Your task to perform on an android device: Open Reddit.com Image 0: 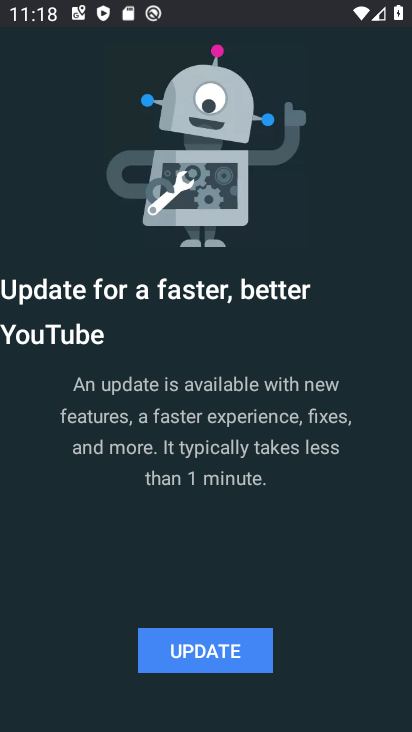
Step 0: press home button
Your task to perform on an android device: Open Reddit.com Image 1: 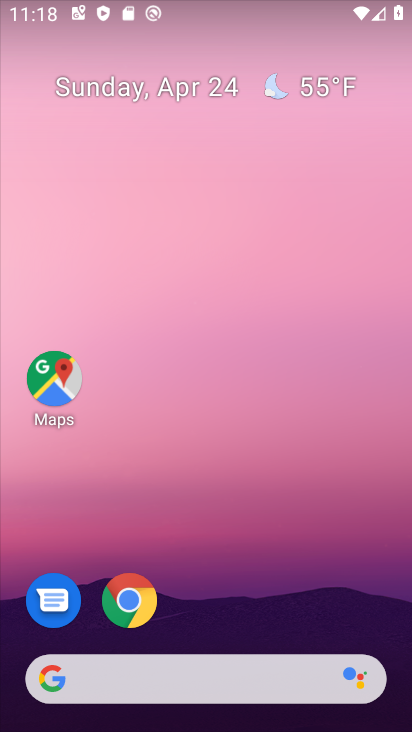
Step 1: drag from (195, 638) to (237, 122)
Your task to perform on an android device: Open Reddit.com Image 2: 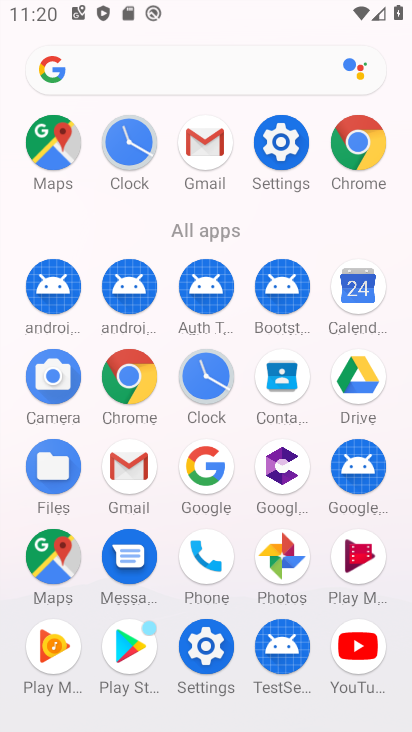
Step 2: click (202, 470)
Your task to perform on an android device: Open Reddit.com Image 3: 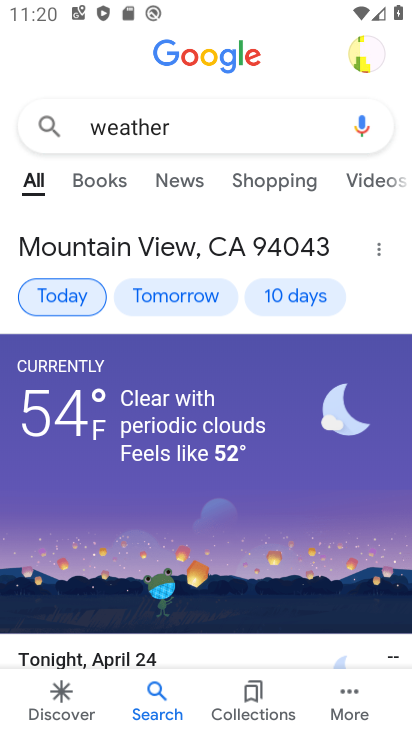
Step 3: click (225, 124)
Your task to perform on an android device: Open Reddit.com Image 4: 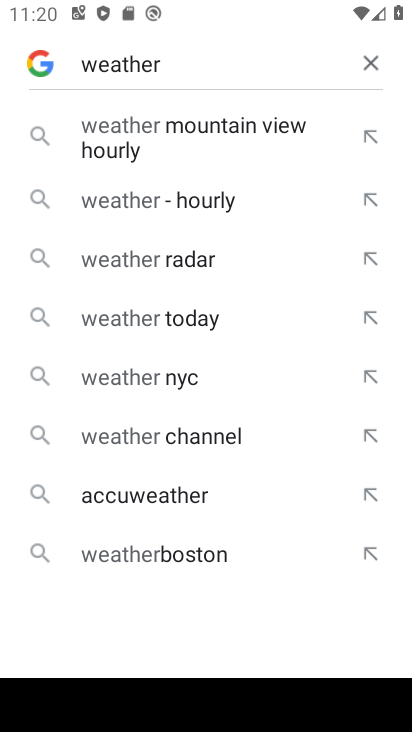
Step 4: click (375, 66)
Your task to perform on an android device: Open Reddit.com Image 5: 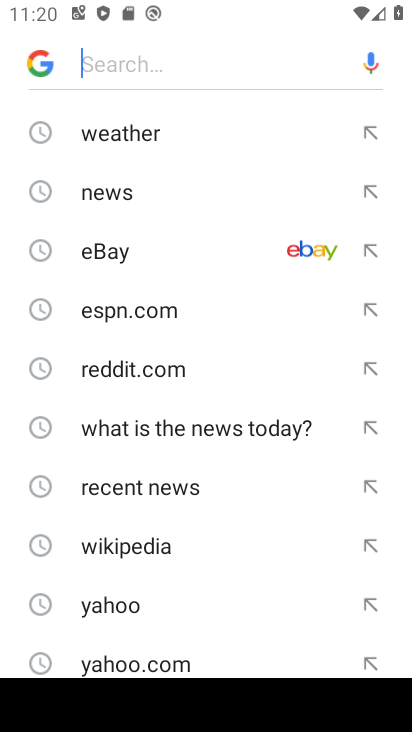
Step 5: click (162, 378)
Your task to perform on an android device: Open Reddit.com Image 6: 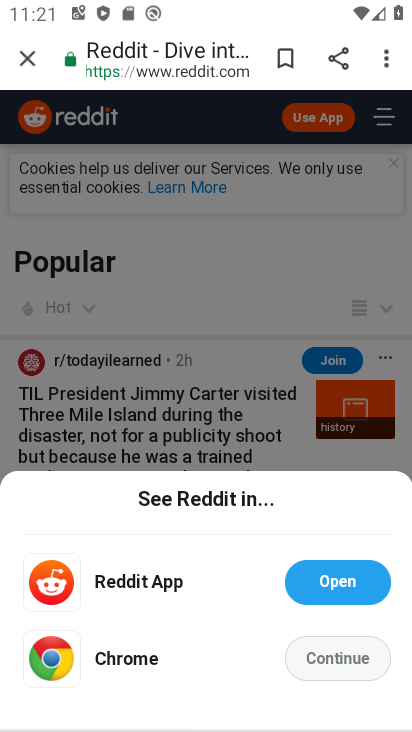
Step 6: task complete